Your task to perform on an android device: Show me productivity apps on the Play Store Image 0: 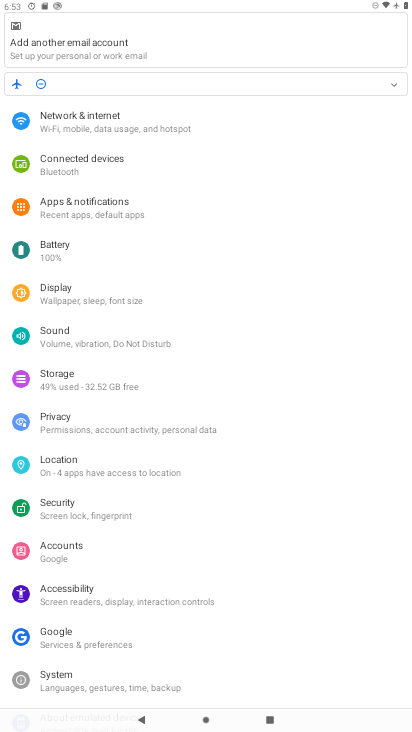
Step 0: press home button
Your task to perform on an android device: Show me productivity apps on the Play Store Image 1: 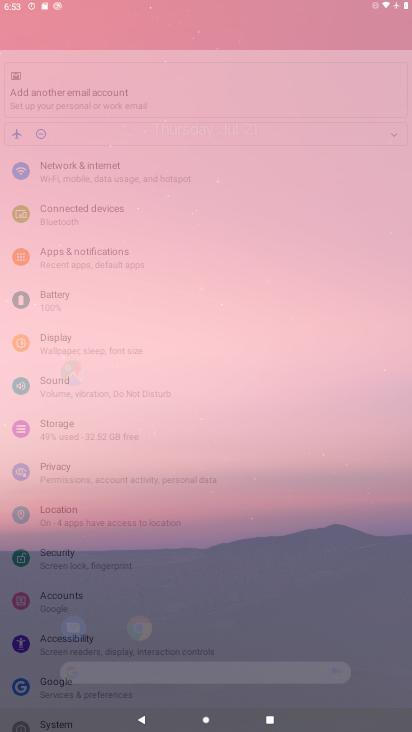
Step 1: drag from (354, 676) to (175, 36)
Your task to perform on an android device: Show me productivity apps on the Play Store Image 2: 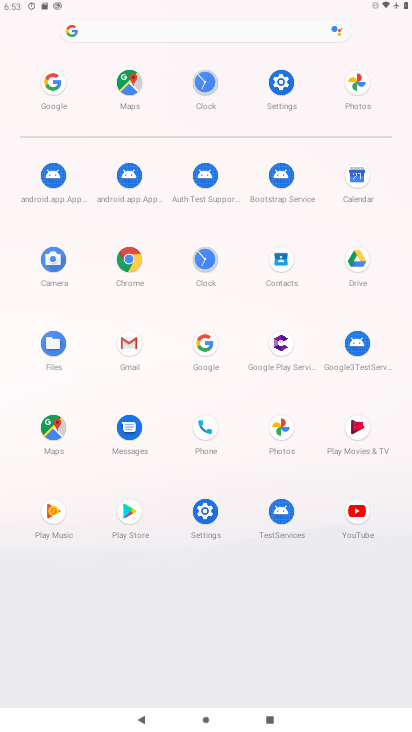
Step 2: click (128, 510)
Your task to perform on an android device: Show me productivity apps on the Play Store Image 3: 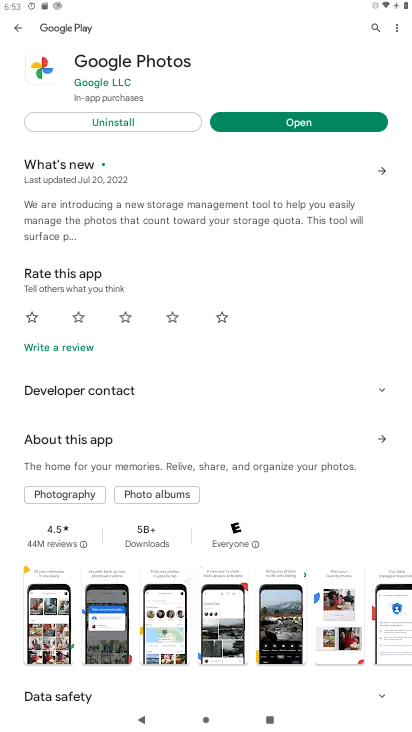
Step 3: task complete